Your task to perform on an android device: turn off location history Image 0: 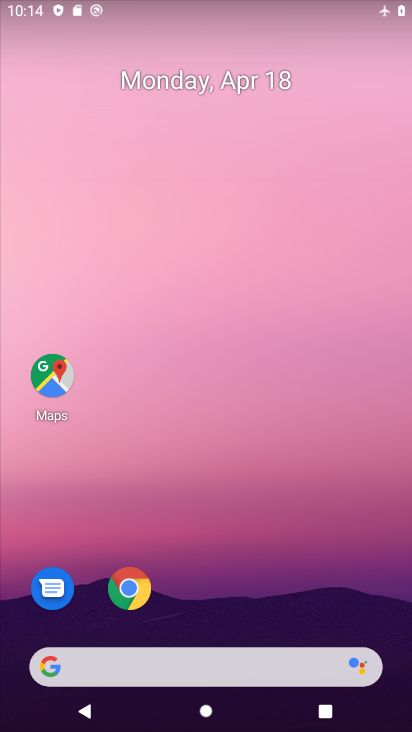
Step 0: drag from (238, 598) to (266, 75)
Your task to perform on an android device: turn off location history Image 1: 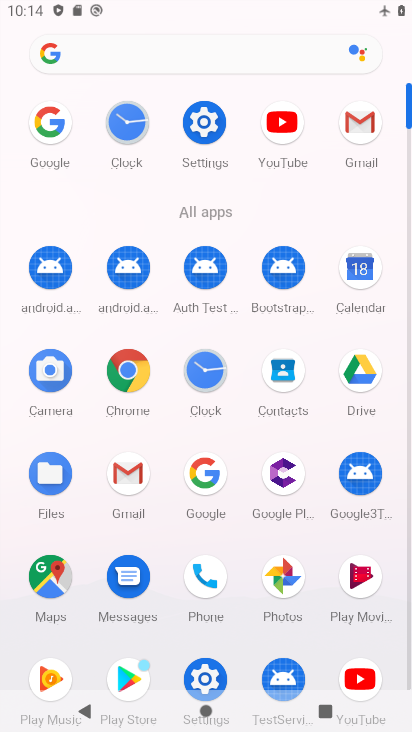
Step 1: click (201, 121)
Your task to perform on an android device: turn off location history Image 2: 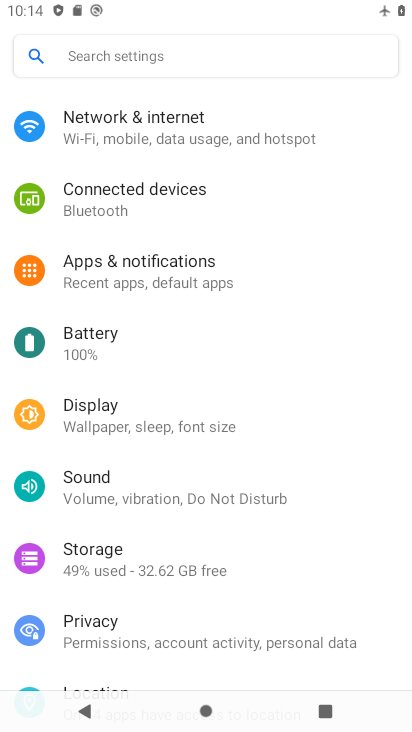
Step 2: drag from (156, 381) to (176, 276)
Your task to perform on an android device: turn off location history Image 3: 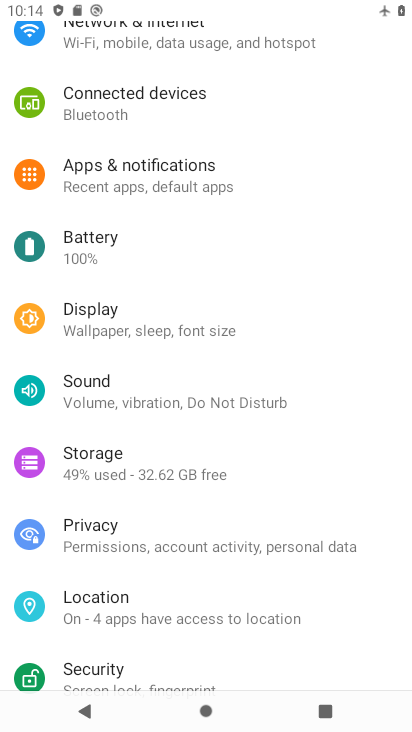
Step 3: click (173, 597)
Your task to perform on an android device: turn off location history Image 4: 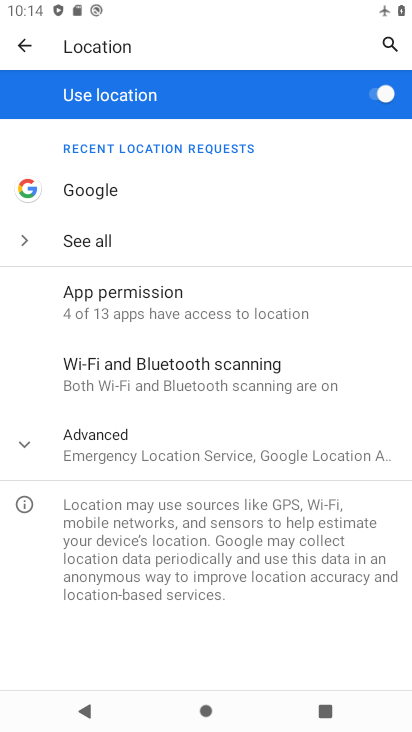
Step 4: click (237, 453)
Your task to perform on an android device: turn off location history Image 5: 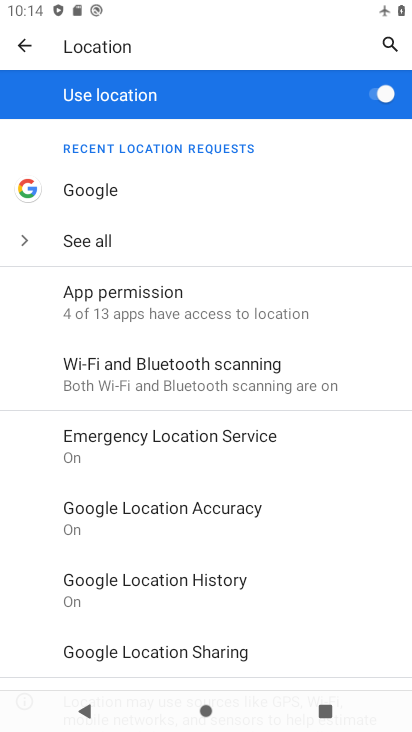
Step 5: click (190, 588)
Your task to perform on an android device: turn off location history Image 6: 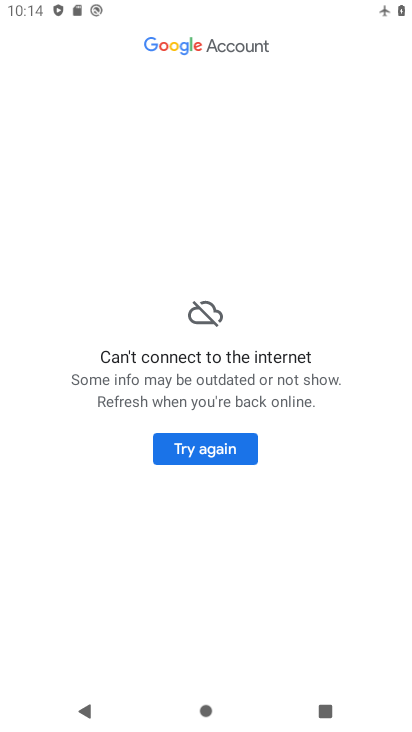
Step 6: click (234, 453)
Your task to perform on an android device: turn off location history Image 7: 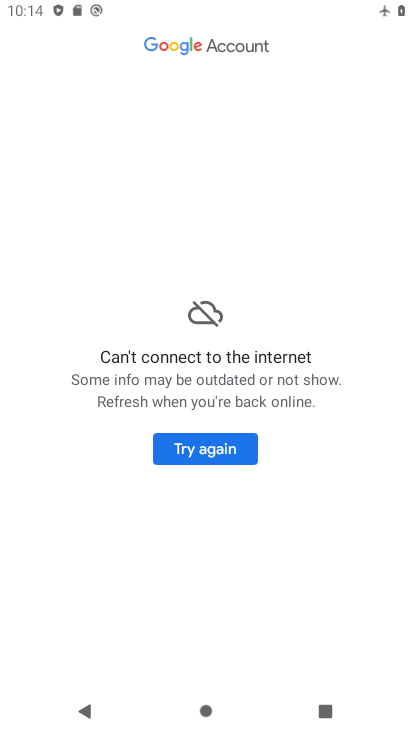
Step 7: task complete